Your task to perform on an android device: turn on notifications settings in the gmail app Image 0: 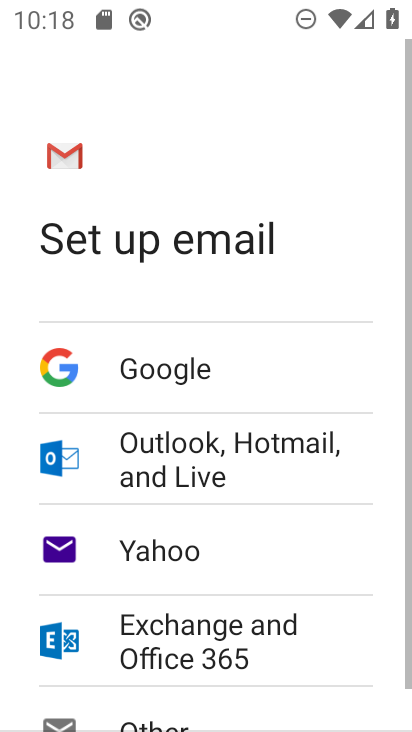
Step 0: press home button
Your task to perform on an android device: turn on notifications settings in the gmail app Image 1: 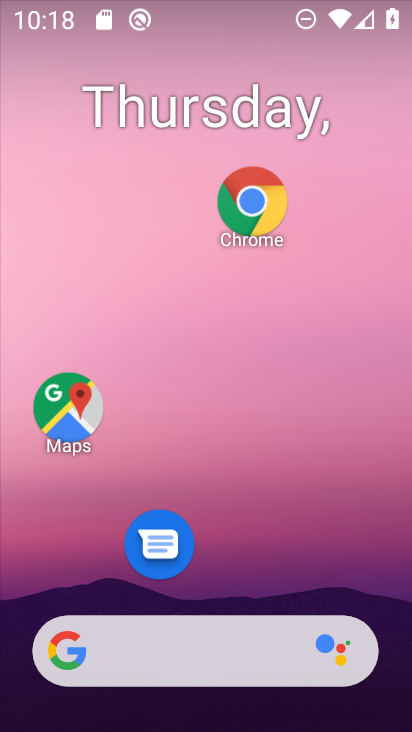
Step 1: drag from (200, 590) to (240, 97)
Your task to perform on an android device: turn on notifications settings in the gmail app Image 2: 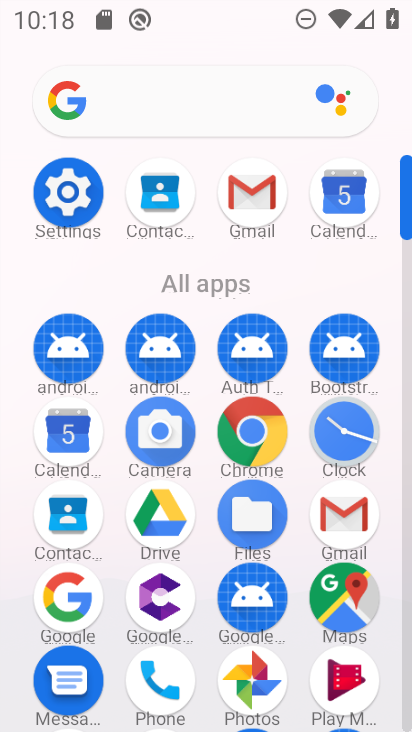
Step 2: click (339, 509)
Your task to perform on an android device: turn on notifications settings in the gmail app Image 3: 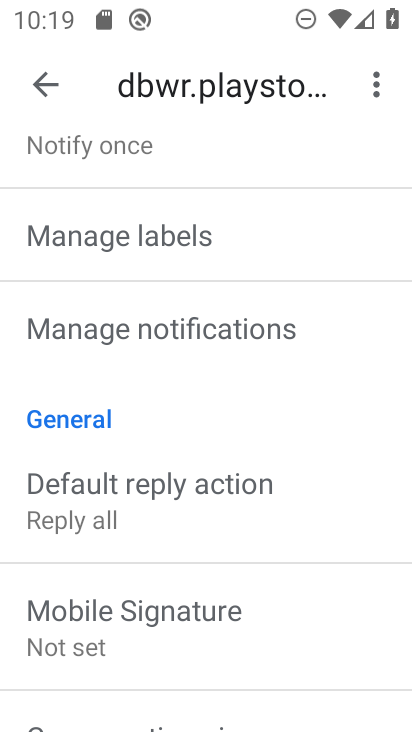
Step 3: click (39, 86)
Your task to perform on an android device: turn on notifications settings in the gmail app Image 4: 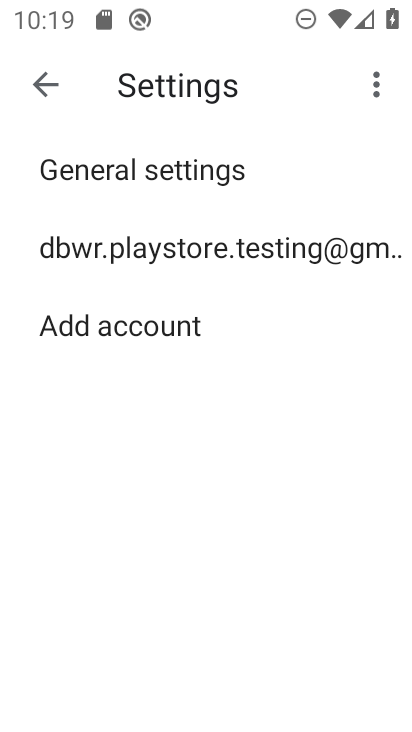
Step 4: click (263, 170)
Your task to perform on an android device: turn on notifications settings in the gmail app Image 5: 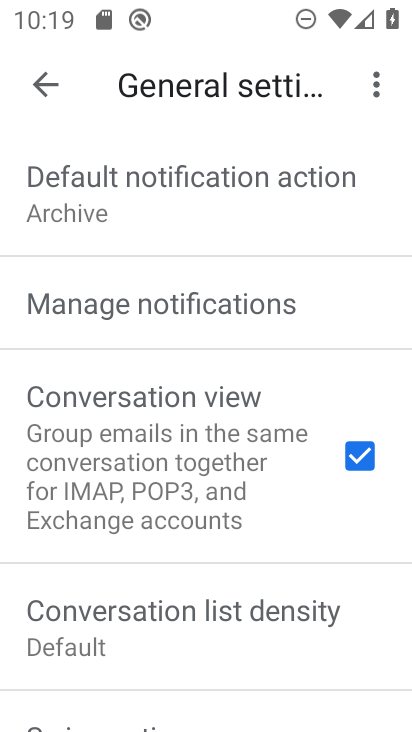
Step 5: click (217, 321)
Your task to perform on an android device: turn on notifications settings in the gmail app Image 6: 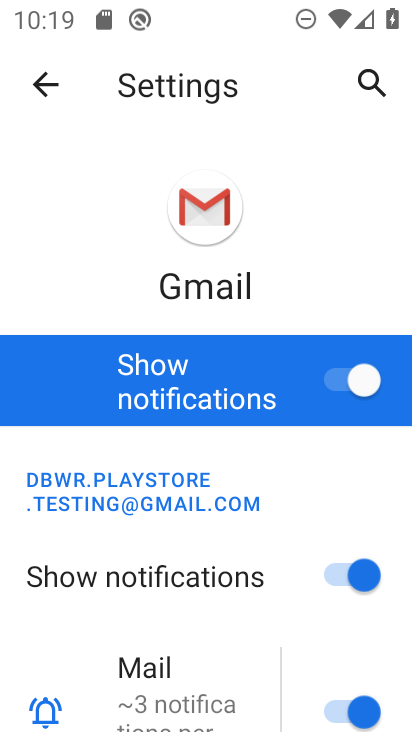
Step 6: task complete